Your task to perform on an android device: turn on wifi Image 0: 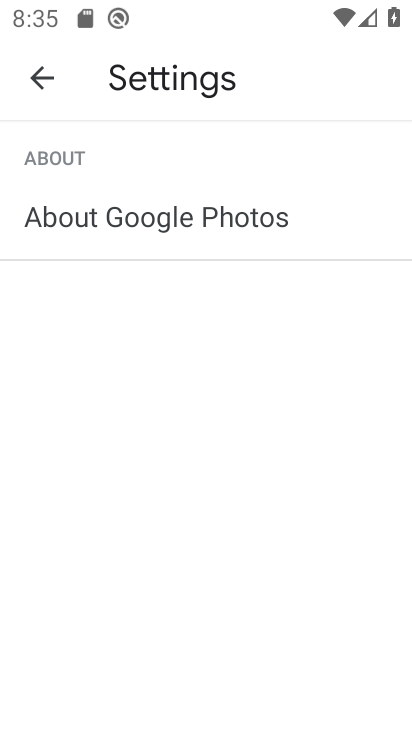
Step 0: press home button
Your task to perform on an android device: turn on wifi Image 1: 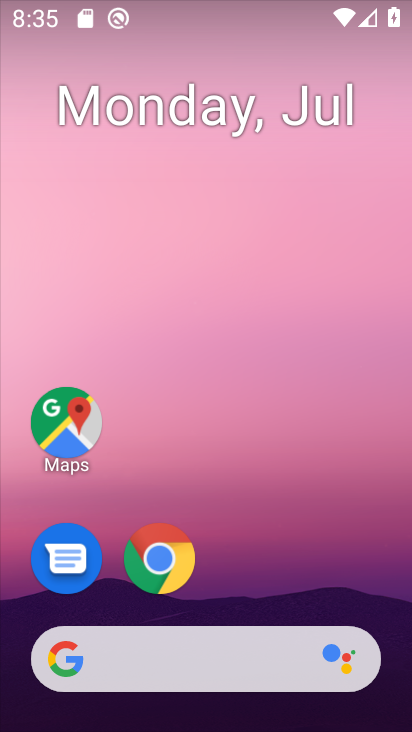
Step 1: drag from (323, 565) to (315, 169)
Your task to perform on an android device: turn on wifi Image 2: 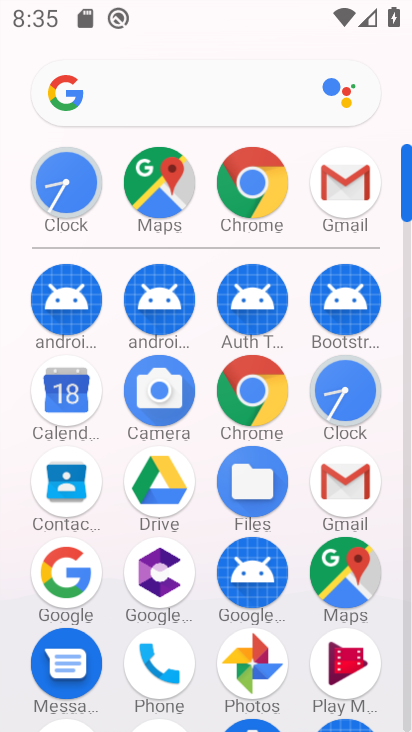
Step 2: drag from (388, 534) to (389, 320)
Your task to perform on an android device: turn on wifi Image 3: 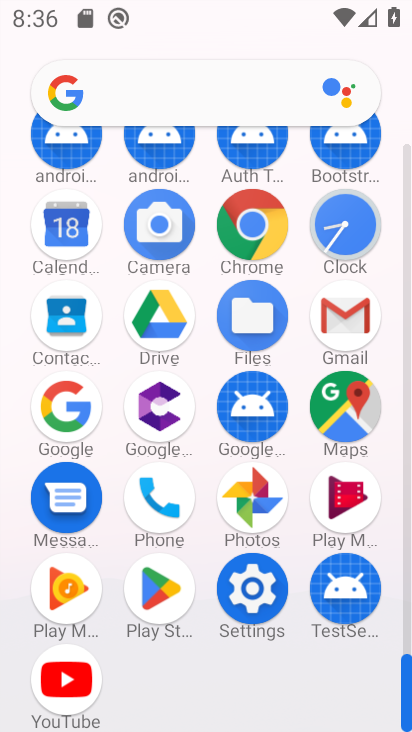
Step 3: click (253, 583)
Your task to perform on an android device: turn on wifi Image 4: 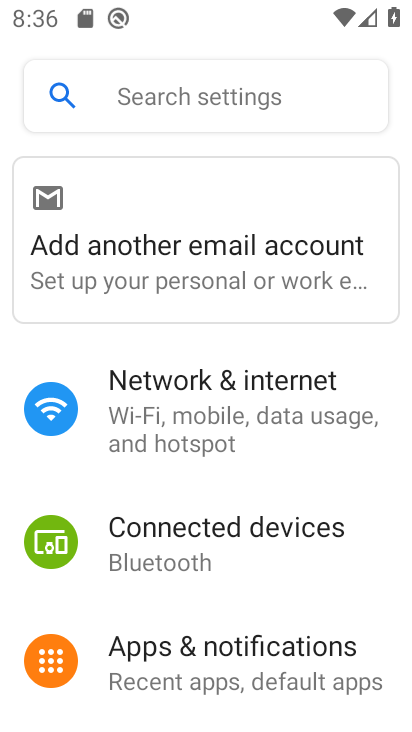
Step 4: click (256, 401)
Your task to perform on an android device: turn on wifi Image 5: 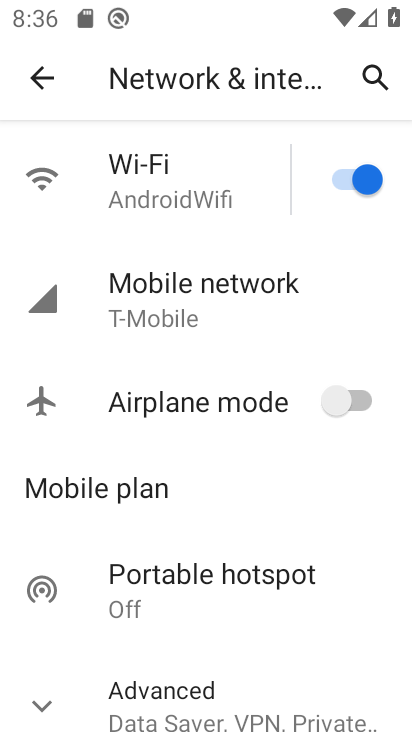
Step 5: task complete